Your task to perform on an android device: Open Yahoo.com Image 0: 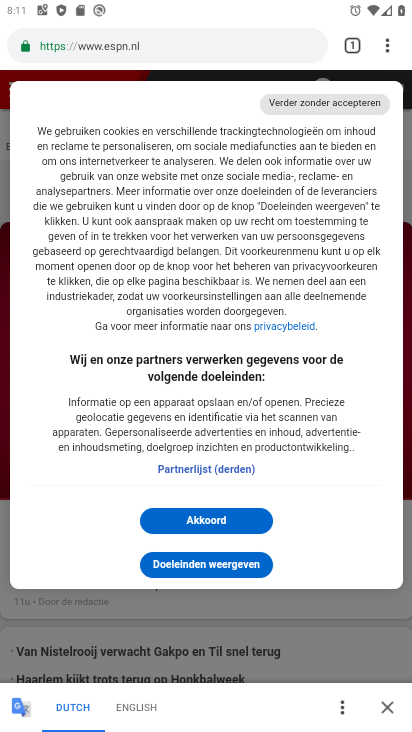
Step 0: press home button
Your task to perform on an android device: Open Yahoo.com Image 1: 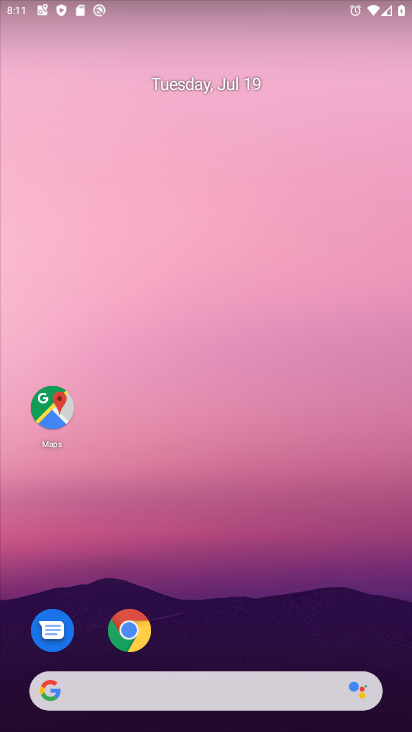
Step 1: click (129, 627)
Your task to perform on an android device: Open Yahoo.com Image 2: 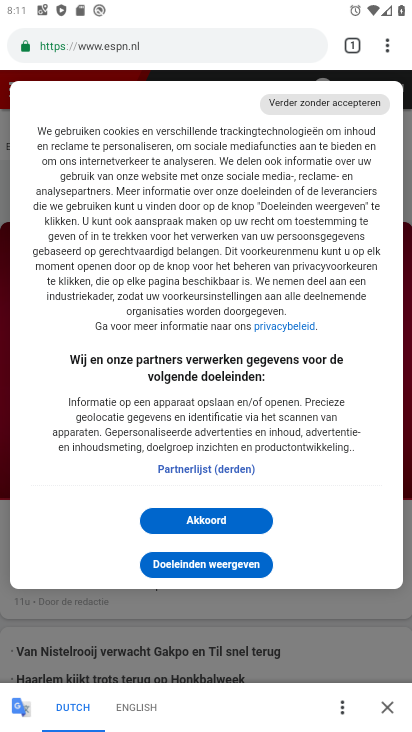
Step 2: click (133, 39)
Your task to perform on an android device: Open Yahoo.com Image 3: 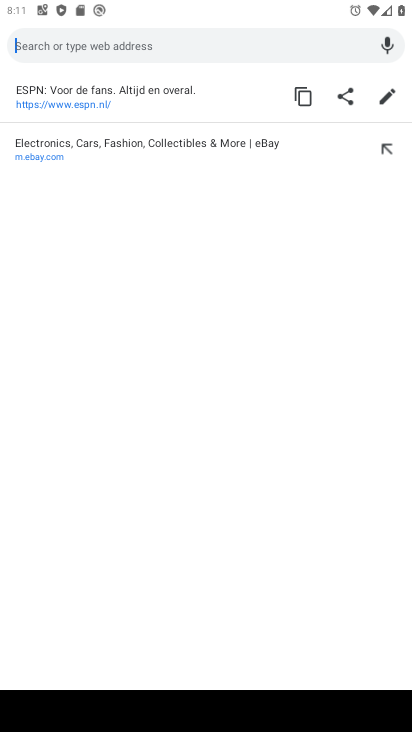
Step 3: type "www.yahoo.com"
Your task to perform on an android device: Open Yahoo.com Image 4: 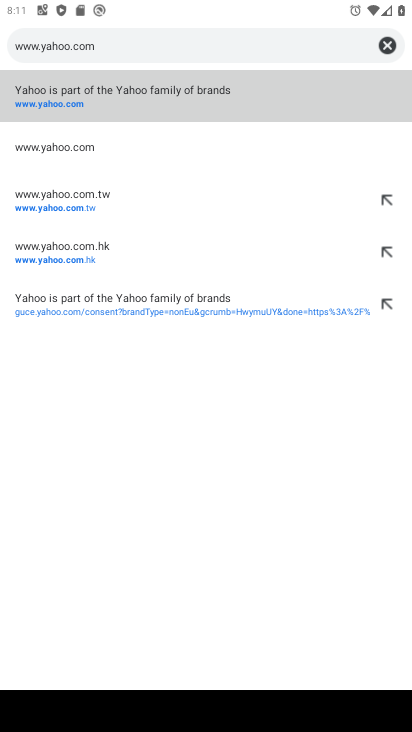
Step 4: click (59, 102)
Your task to perform on an android device: Open Yahoo.com Image 5: 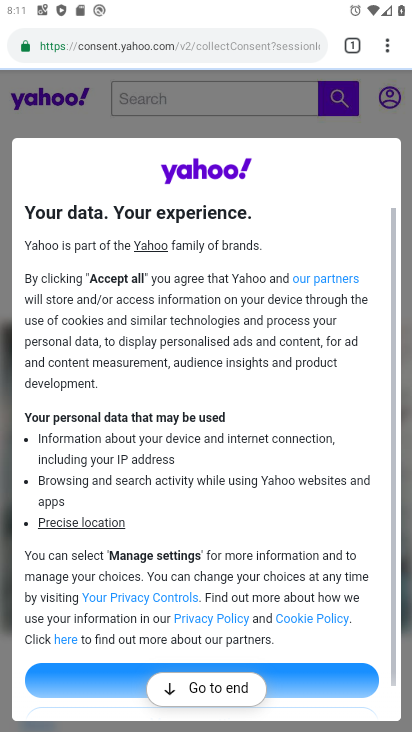
Step 5: task complete